Your task to perform on an android device: toggle notifications settings in the gmail app Image 0: 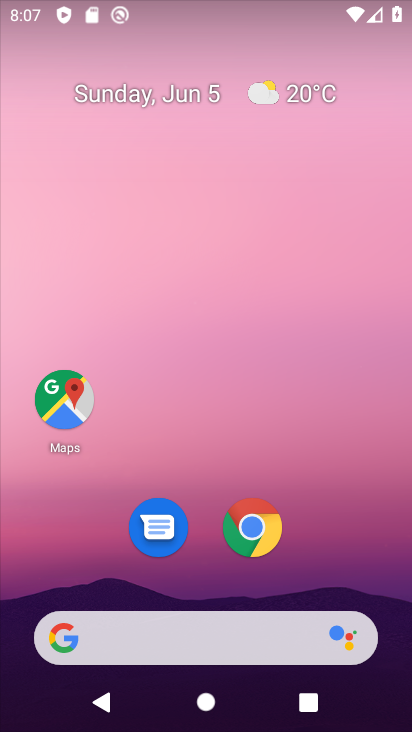
Step 0: drag from (316, 578) to (411, 23)
Your task to perform on an android device: toggle notifications settings in the gmail app Image 1: 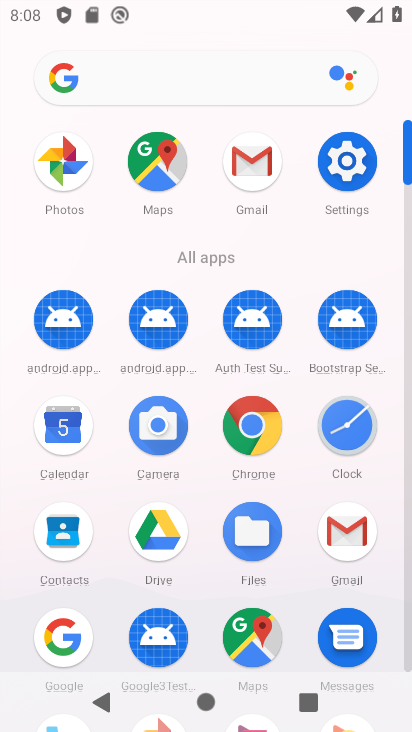
Step 1: click (239, 152)
Your task to perform on an android device: toggle notifications settings in the gmail app Image 2: 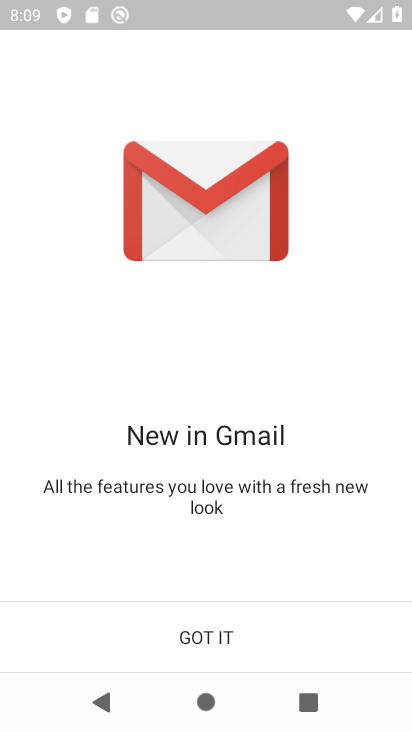
Step 2: click (221, 642)
Your task to perform on an android device: toggle notifications settings in the gmail app Image 3: 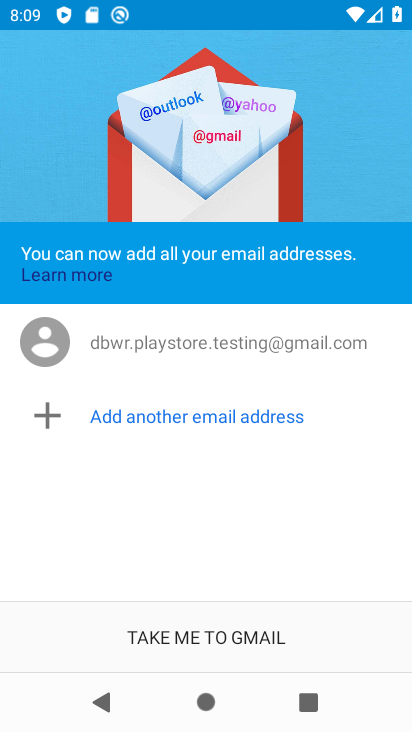
Step 3: click (221, 643)
Your task to perform on an android device: toggle notifications settings in the gmail app Image 4: 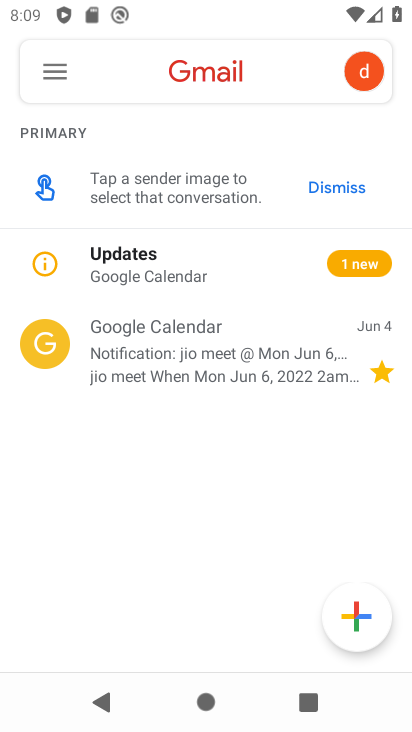
Step 4: click (40, 83)
Your task to perform on an android device: toggle notifications settings in the gmail app Image 5: 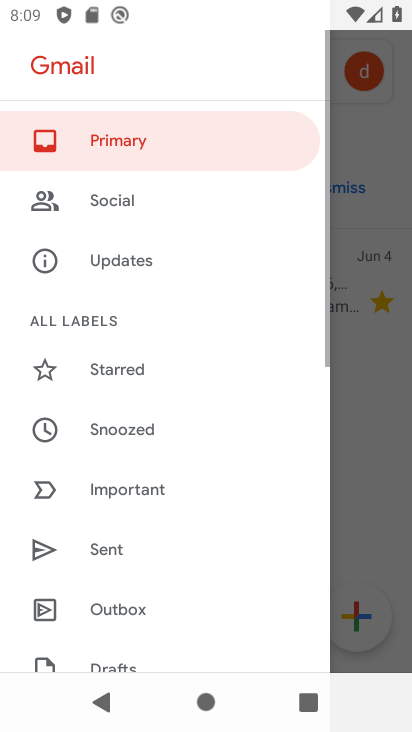
Step 5: click (173, 335)
Your task to perform on an android device: toggle notifications settings in the gmail app Image 6: 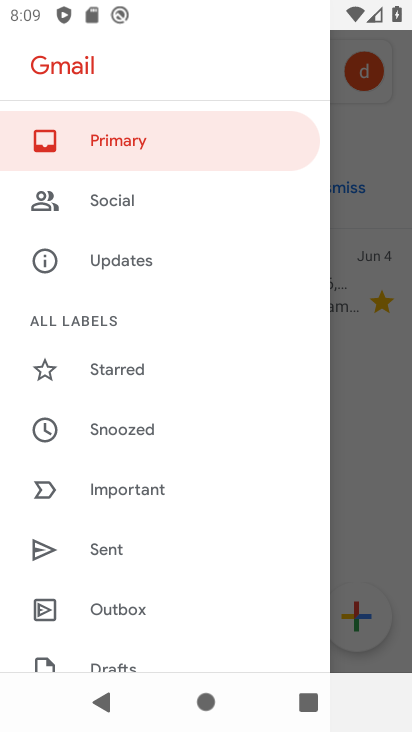
Step 6: drag from (166, 565) to (206, 80)
Your task to perform on an android device: toggle notifications settings in the gmail app Image 7: 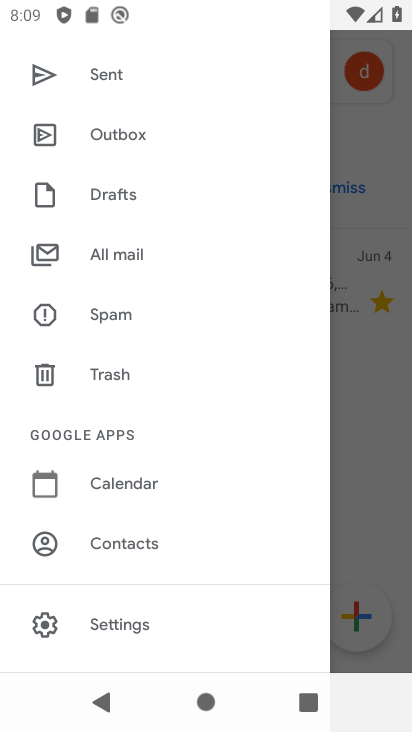
Step 7: click (124, 633)
Your task to perform on an android device: toggle notifications settings in the gmail app Image 8: 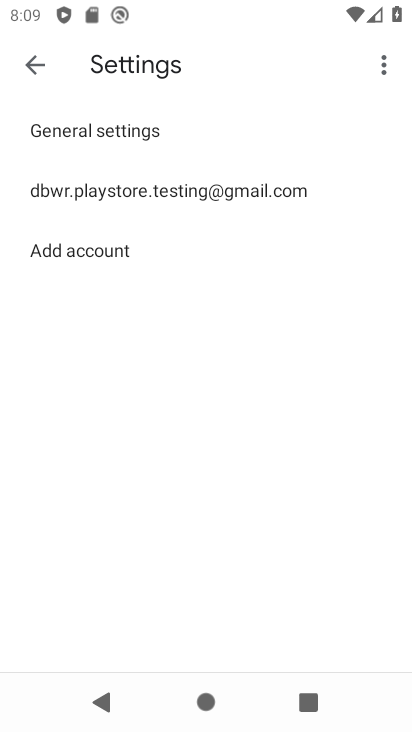
Step 8: click (91, 183)
Your task to perform on an android device: toggle notifications settings in the gmail app Image 9: 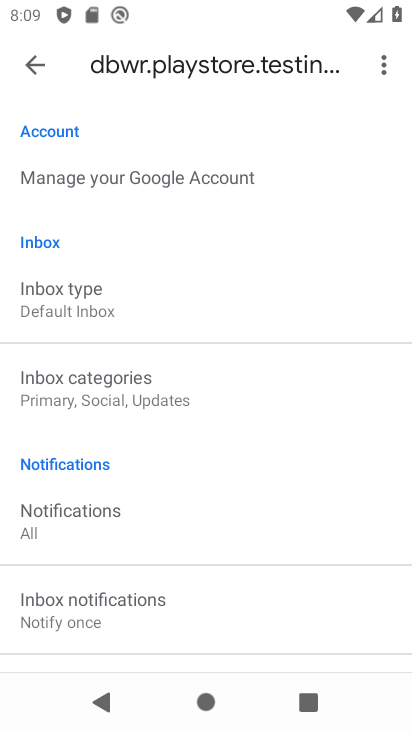
Step 9: click (79, 505)
Your task to perform on an android device: toggle notifications settings in the gmail app Image 10: 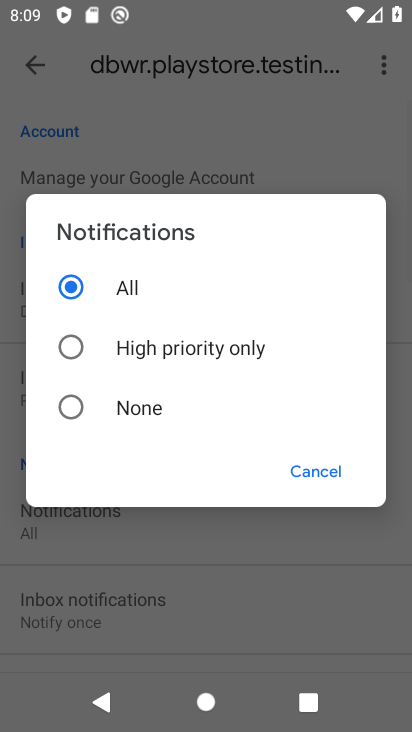
Step 10: click (73, 353)
Your task to perform on an android device: toggle notifications settings in the gmail app Image 11: 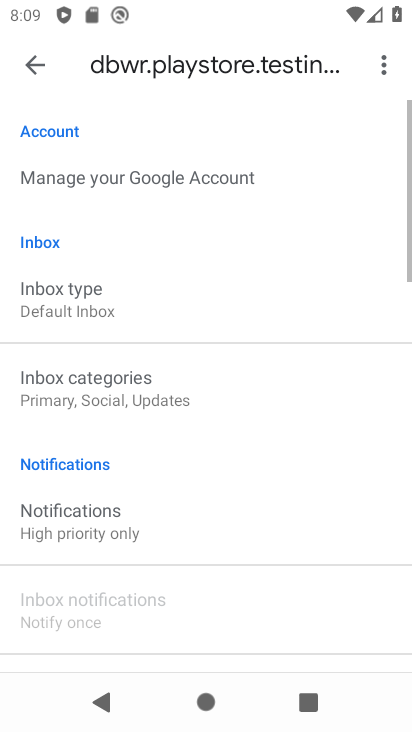
Step 11: task complete